Your task to perform on an android device: change notification settings in the gmail app Image 0: 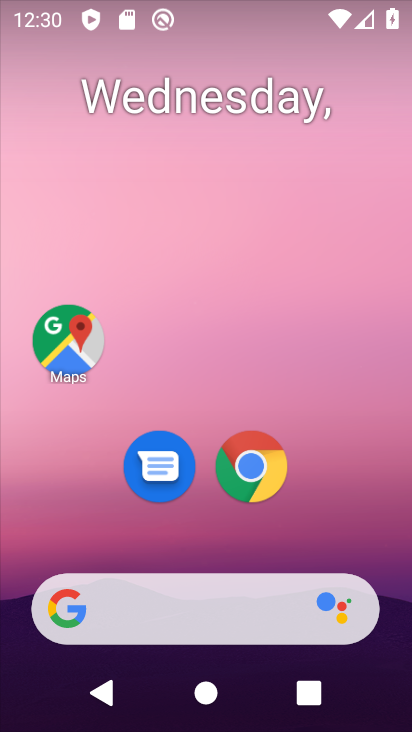
Step 0: drag from (150, 730) to (189, 45)
Your task to perform on an android device: change notification settings in the gmail app Image 1: 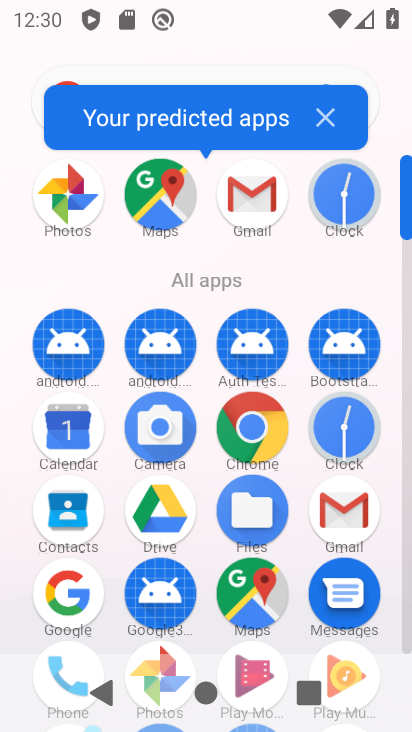
Step 1: click (338, 510)
Your task to perform on an android device: change notification settings in the gmail app Image 2: 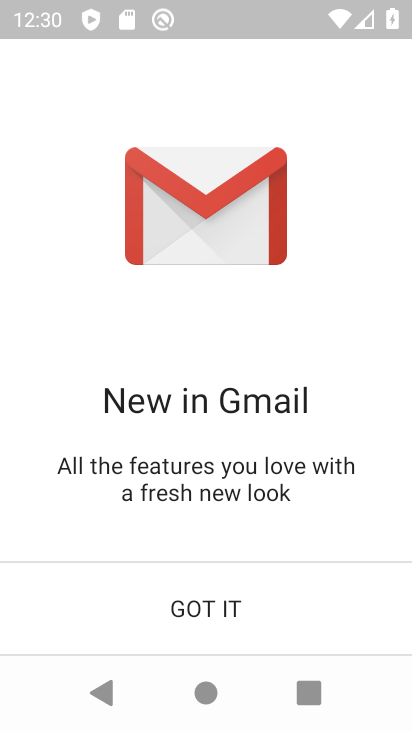
Step 2: click (211, 604)
Your task to perform on an android device: change notification settings in the gmail app Image 3: 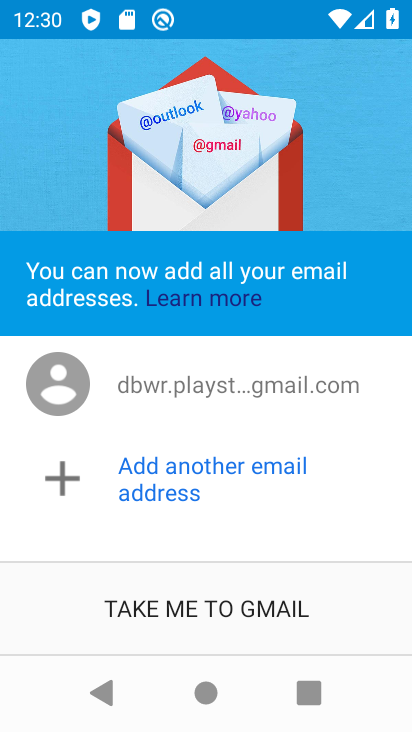
Step 3: click (212, 606)
Your task to perform on an android device: change notification settings in the gmail app Image 4: 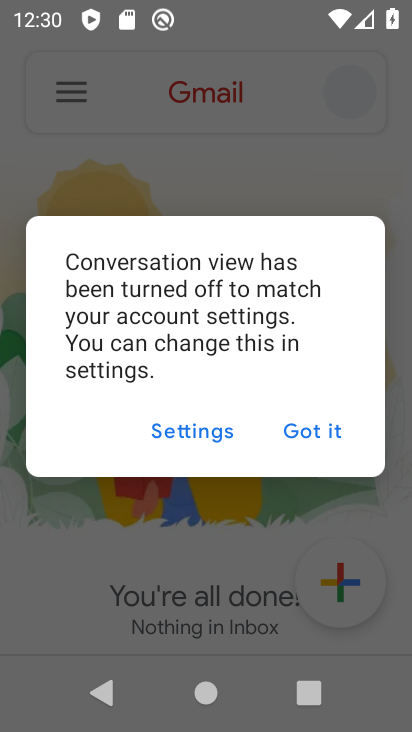
Step 4: click (312, 420)
Your task to perform on an android device: change notification settings in the gmail app Image 5: 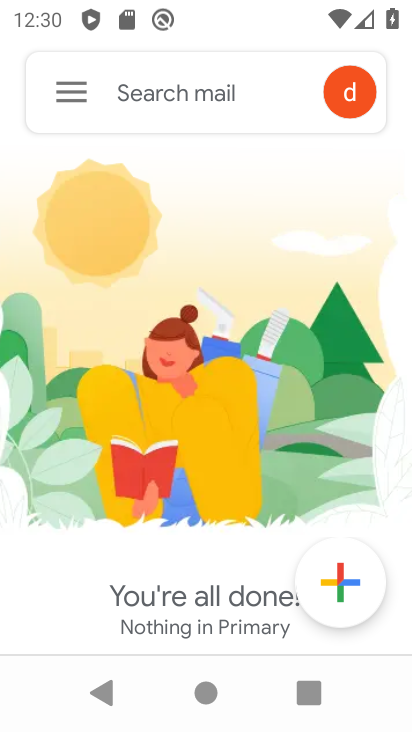
Step 5: click (69, 83)
Your task to perform on an android device: change notification settings in the gmail app Image 6: 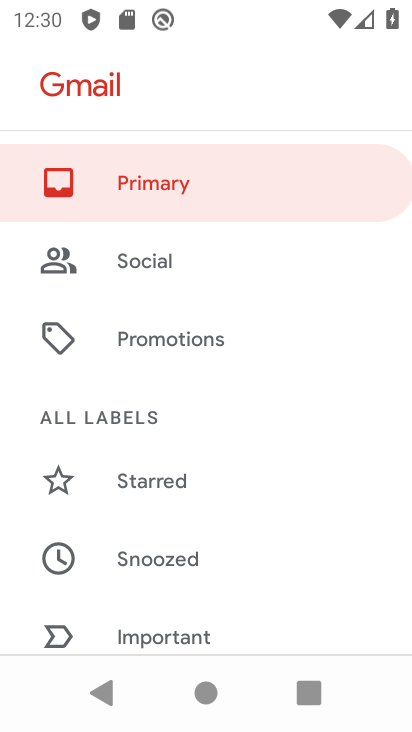
Step 6: drag from (299, 547) to (317, 143)
Your task to perform on an android device: change notification settings in the gmail app Image 7: 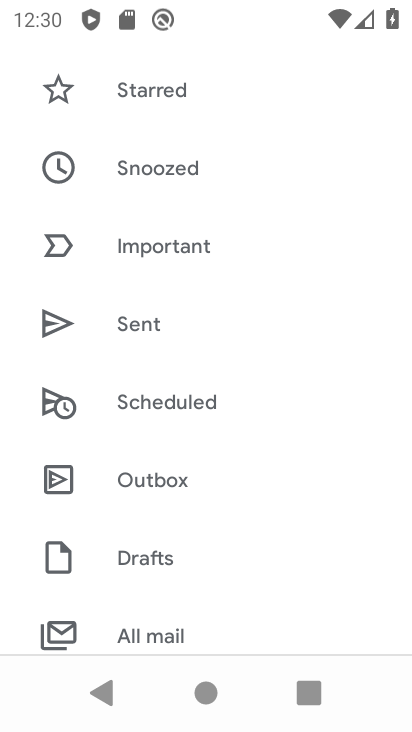
Step 7: drag from (259, 555) to (279, 171)
Your task to perform on an android device: change notification settings in the gmail app Image 8: 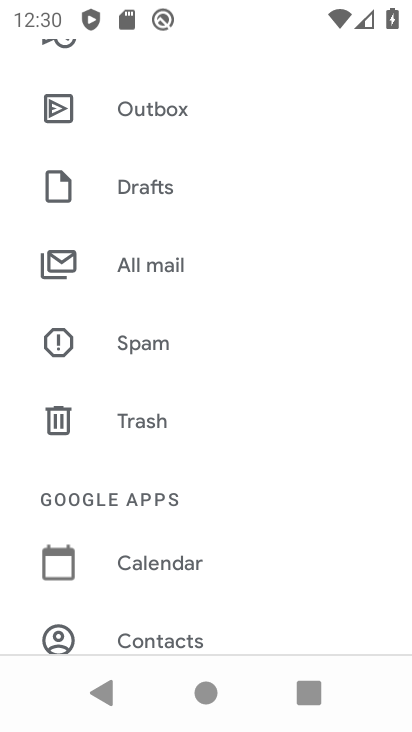
Step 8: drag from (267, 460) to (282, 175)
Your task to perform on an android device: change notification settings in the gmail app Image 9: 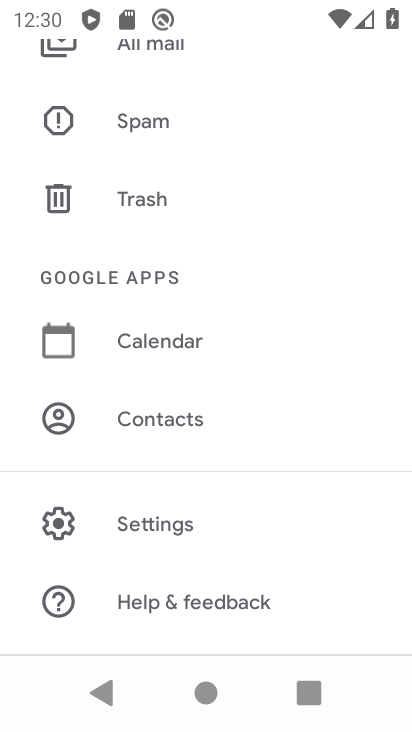
Step 9: click (138, 545)
Your task to perform on an android device: change notification settings in the gmail app Image 10: 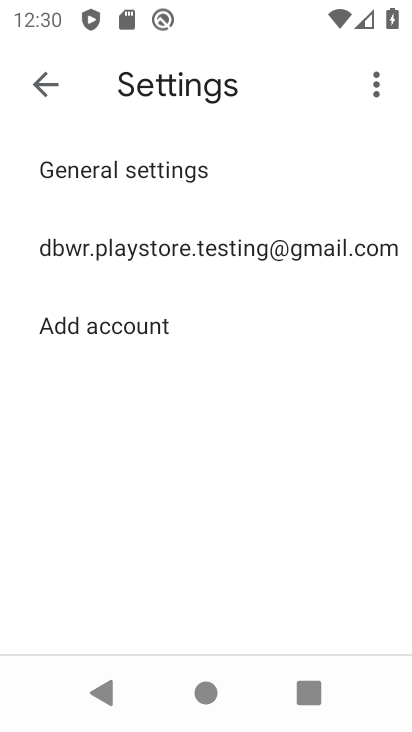
Step 10: click (115, 227)
Your task to perform on an android device: change notification settings in the gmail app Image 11: 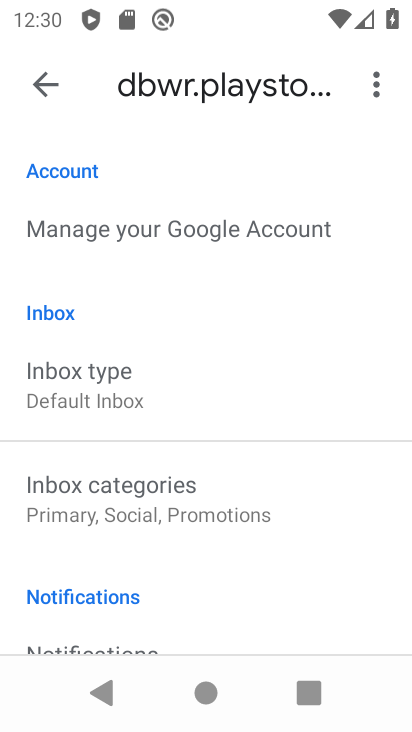
Step 11: drag from (233, 554) to (233, 270)
Your task to perform on an android device: change notification settings in the gmail app Image 12: 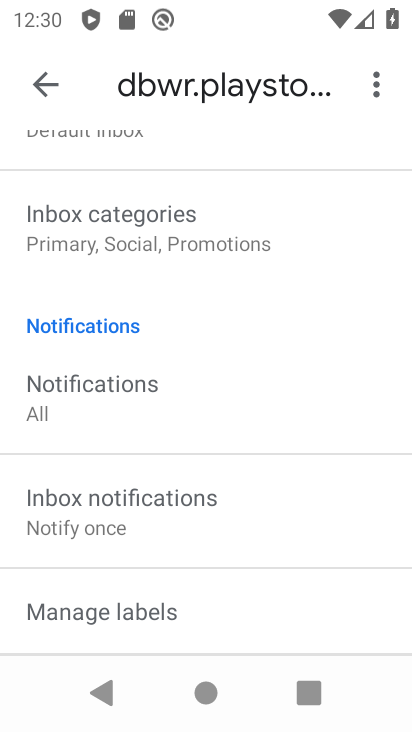
Step 12: click (157, 380)
Your task to perform on an android device: change notification settings in the gmail app Image 13: 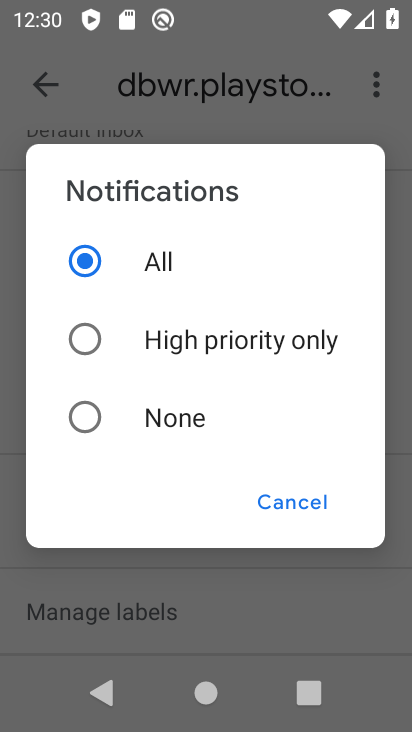
Step 13: click (147, 429)
Your task to perform on an android device: change notification settings in the gmail app Image 14: 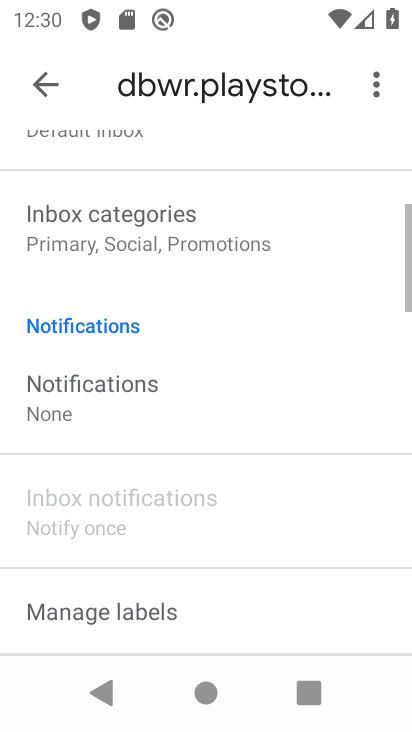
Step 14: task complete